Your task to perform on an android device: turn off javascript in the chrome app Image 0: 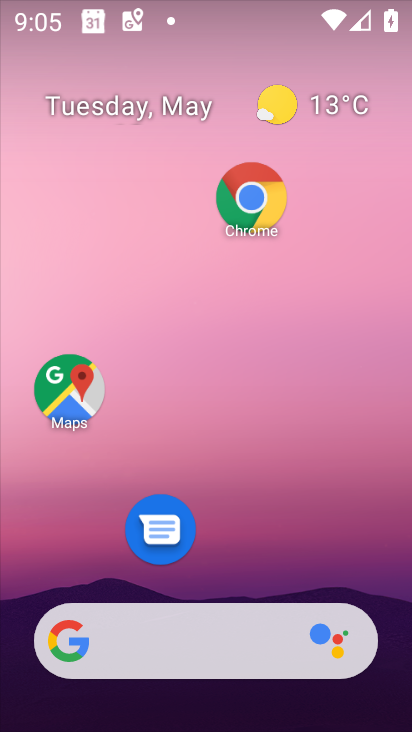
Step 0: click (251, 225)
Your task to perform on an android device: turn off javascript in the chrome app Image 1: 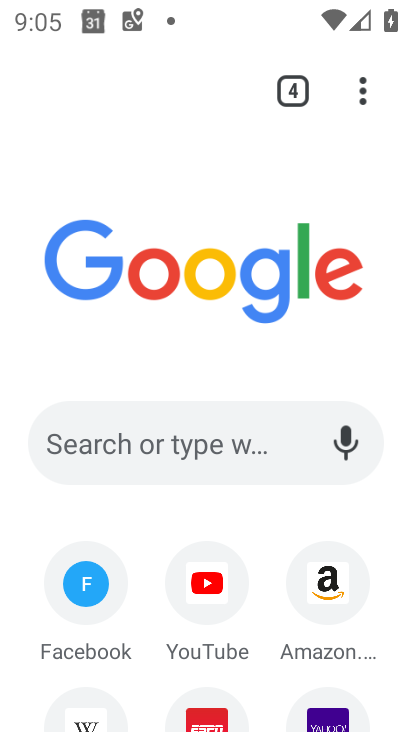
Step 1: click (377, 84)
Your task to perform on an android device: turn off javascript in the chrome app Image 2: 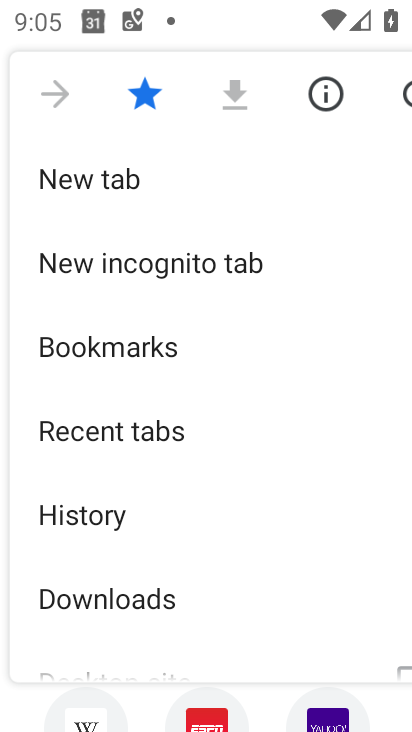
Step 2: drag from (218, 488) to (248, 299)
Your task to perform on an android device: turn off javascript in the chrome app Image 3: 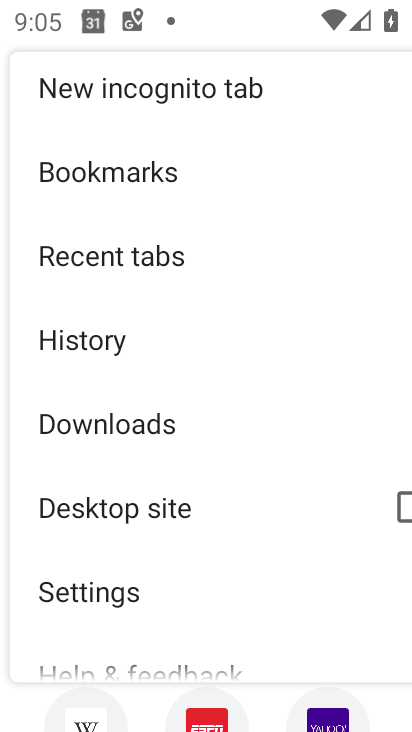
Step 3: click (229, 573)
Your task to perform on an android device: turn off javascript in the chrome app Image 4: 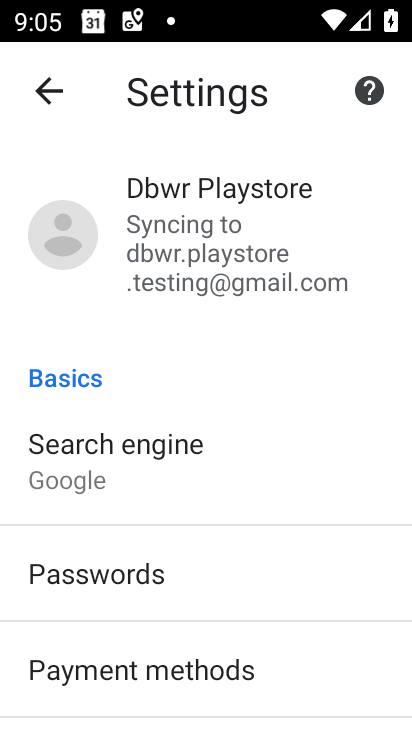
Step 4: drag from (229, 573) to (235, 169)
Your task to perform on an android device: turn off javascript in the chrome app Image 5: 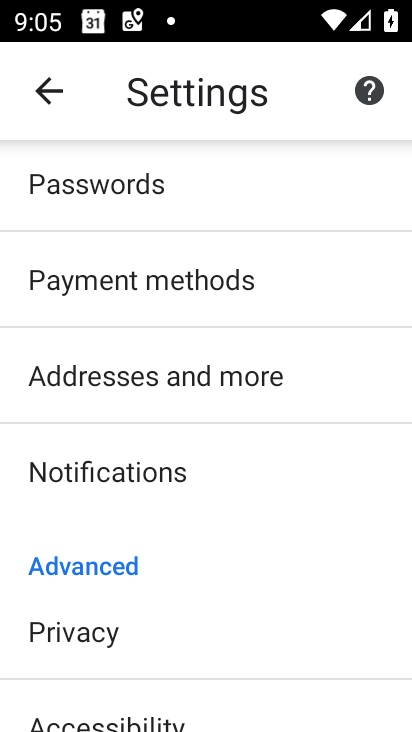
Step 5: drag from (204, 578) to (197, 188)
Your task to perform on an android device: turn off javascript in the chrome app Image 6: 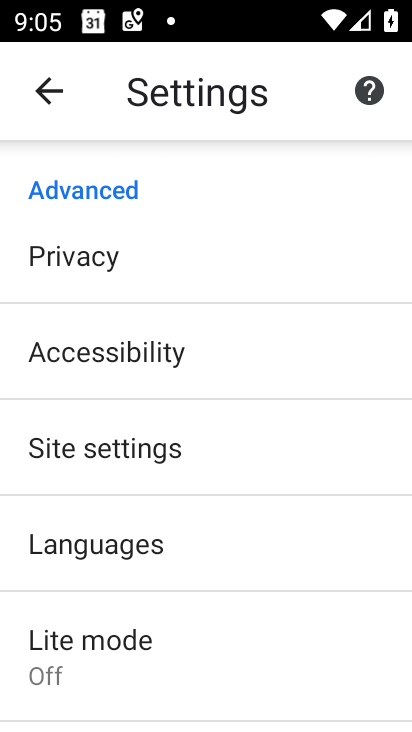
Step 6: click (182, 466)
Your task to perform on an android device: turn off javascript in the chrome app Image 7: 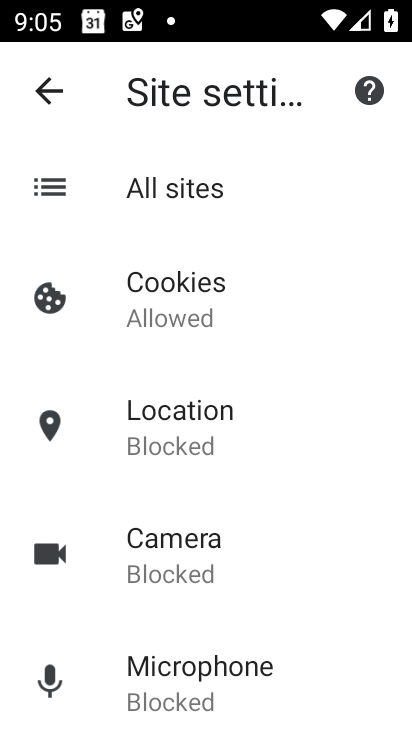
Step 7: drag from (162, 542) to (165, 175)
Your task to perform on an android device: turn off javascript in the chrome app Image 8: 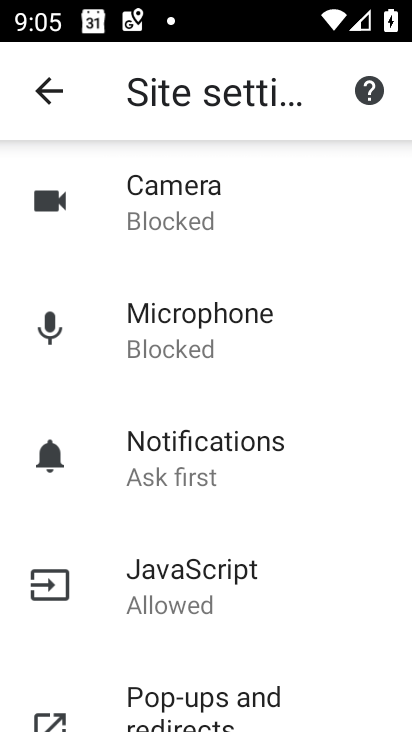
Step 8: click (183, 564)
Your task to perform on an android device: turn off javascript in the chrome app Image 9: 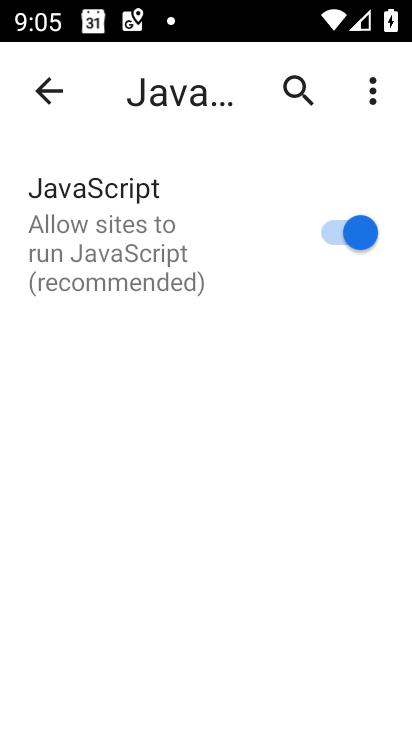
Step 9: click (351, 221)
Your task to perform on an android device: turn off javascript in the chrome app Image 10: 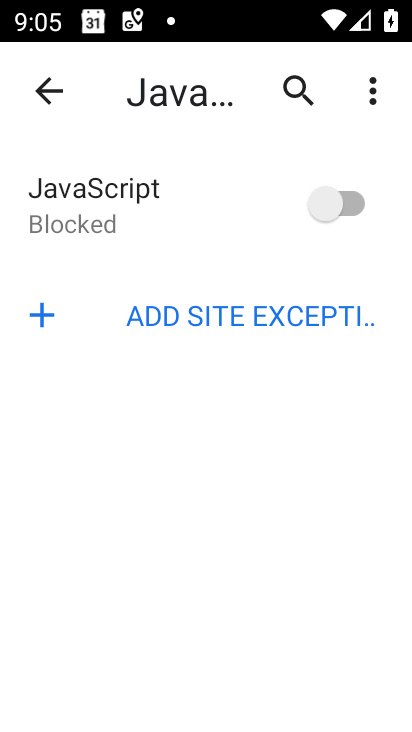
Step 10: task complete